Your task to perform on an android device: Search for sushi restaurants on Maps Image 0: 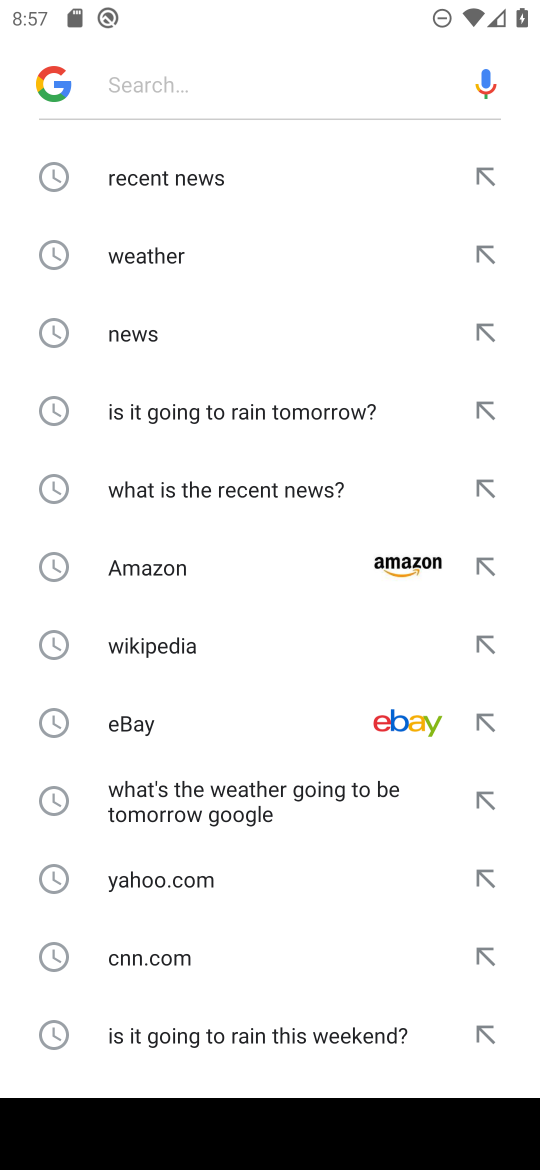
Step 0: press home button
Your task to perform on an android device: Search for sushi restaurants on Maps Image 1: 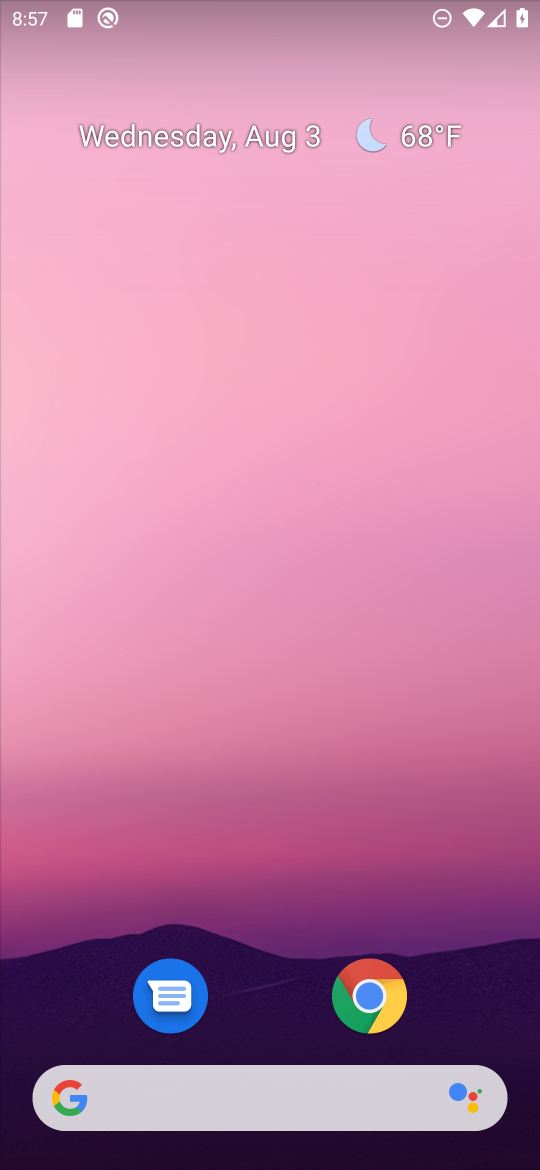
Step 1: drag from (257, 906) to (253, 0)
Your task to perform on an android device: Search for sushi restaurants on Maps Image 2: 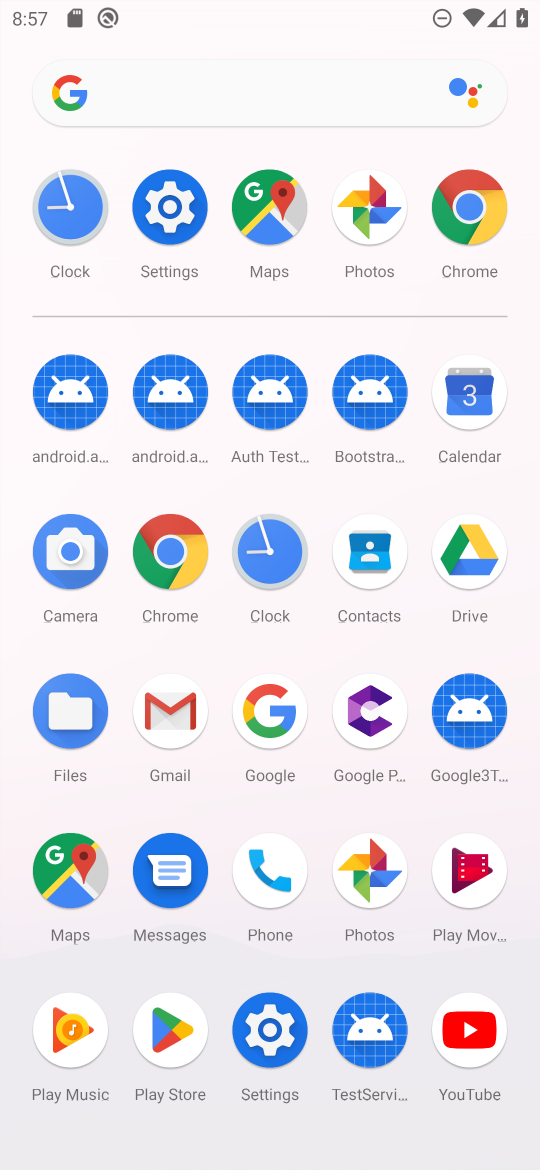
Step 2: click (262, 213)
Your task to perform on an android device: Search for sushi restaurants on Maps Image 3: 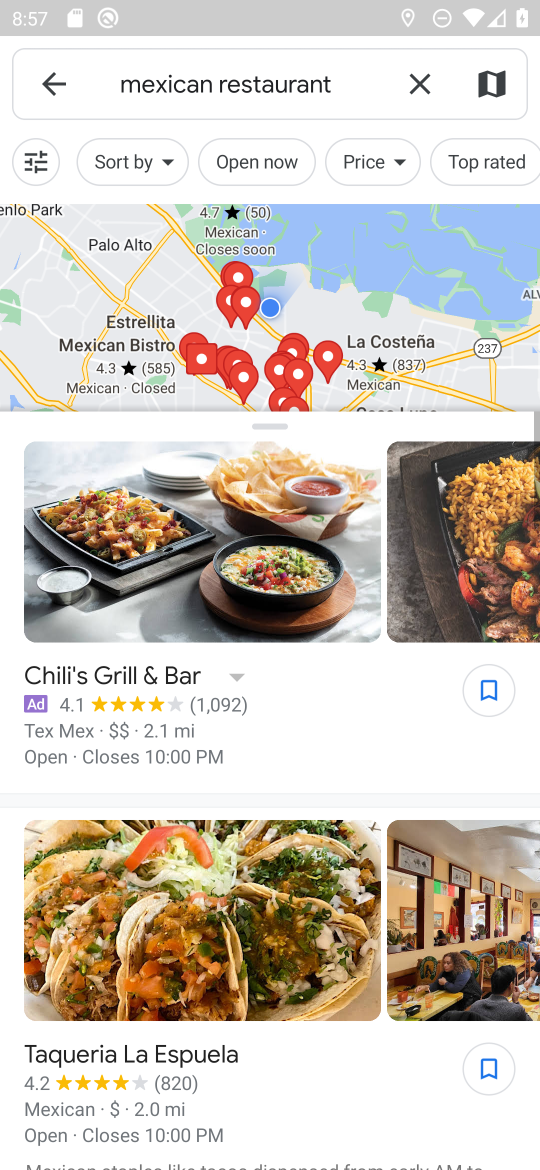
Step 3: click (415, 77)
Your task to perform on an android device: Search for sushi restaurants on Maps Image 4: 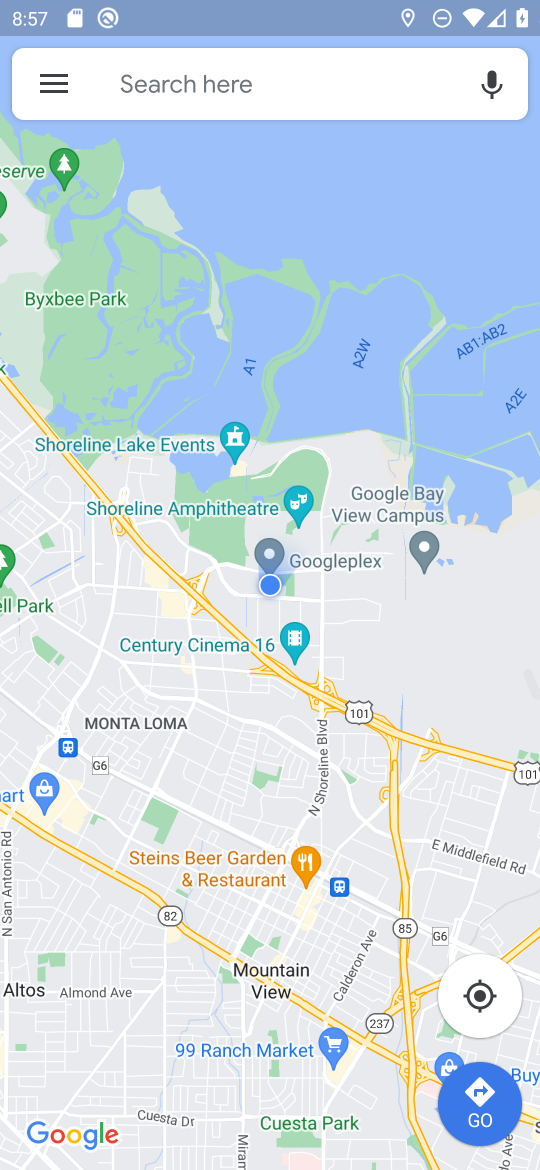
Step 4: click (333, 81)
Your task to perform on an android device: Search for sushi restaurants on Maps Image 5: 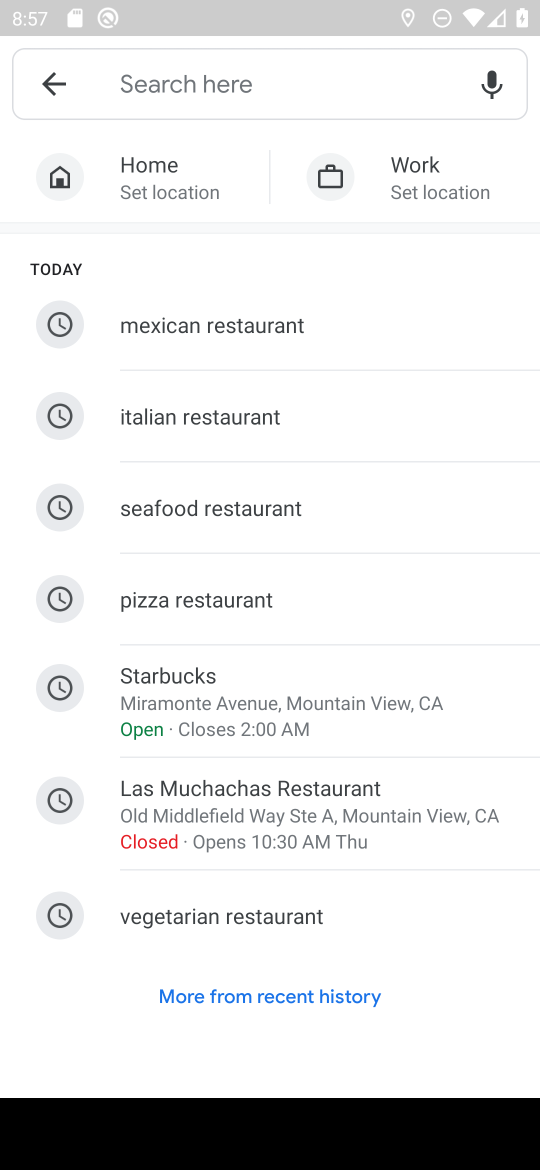
Step 5: type "sushi restaurants"
Your task to perform on an android device: Search for sushi restaurants on Maps Image 6: 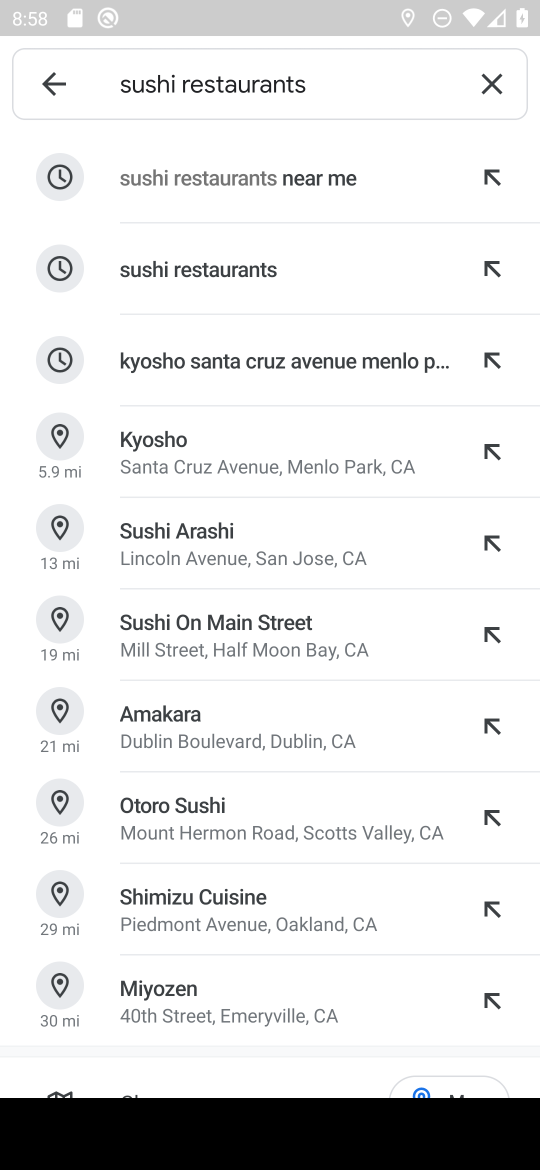
Step 6: click (274, 263)
Your task to perform on an android device: Search for sushi restaurants on Maps Image 7: 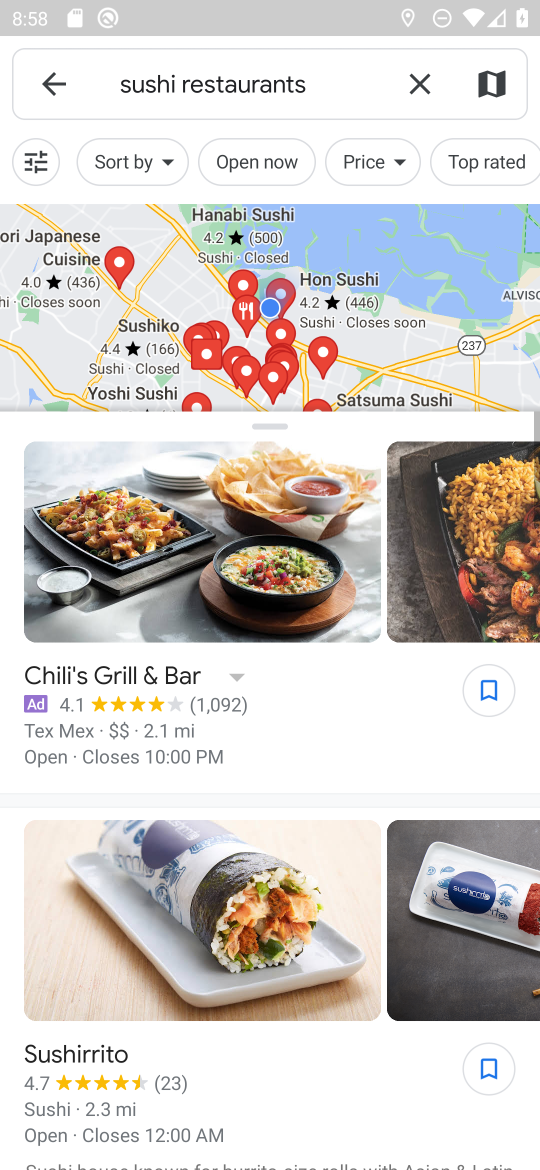
Step 7: task complete